Your task to perform on an android device: Open Wikipedia Image 0: 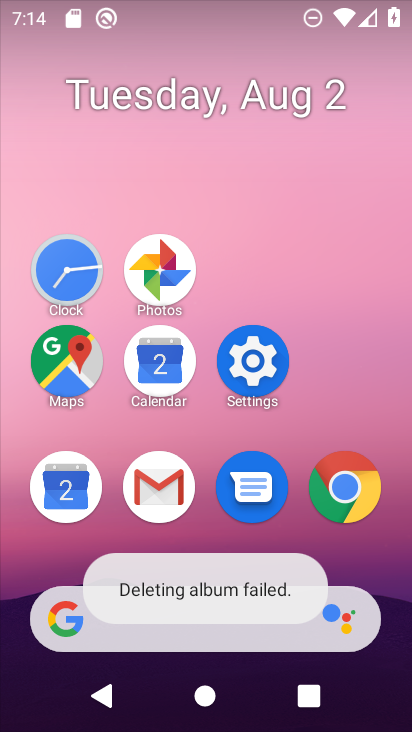
Step 0: click (337, 482)
Your task to perform on an android device: Open Wikipedia Image 1: 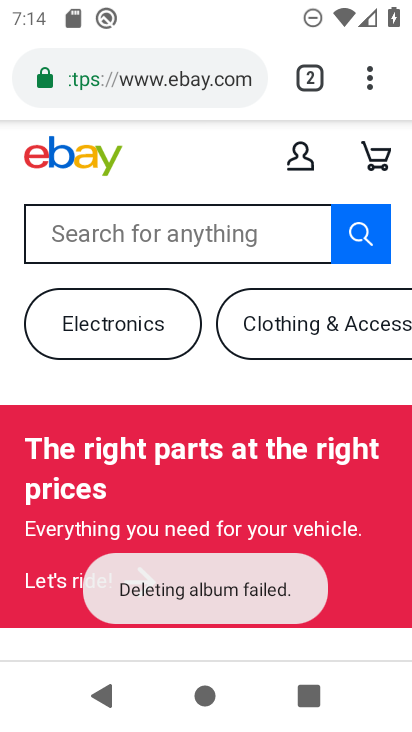
Step 1: click (372, 75)
Your task to perform on an android device: Open Wikipedia Image 2: 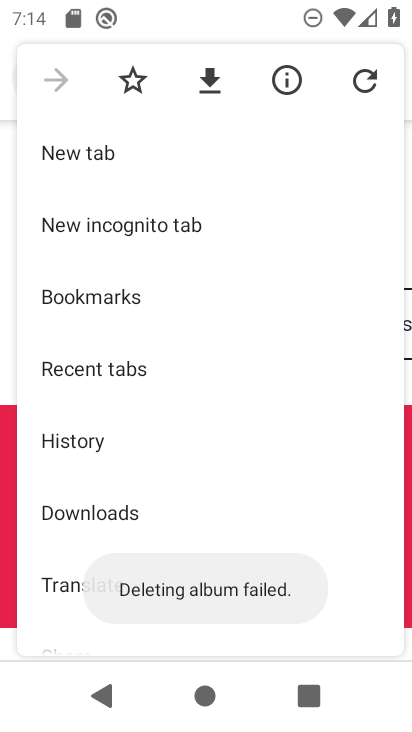
Step 2: click (95, 157)
Your task to perform on an android device: Open Wikipedia Image 3: 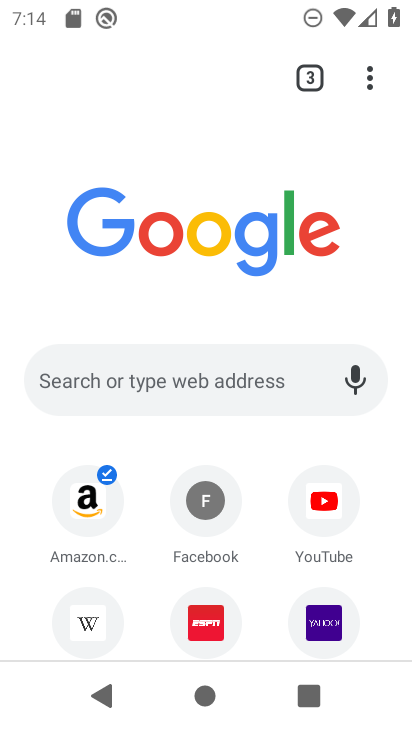
Step 3: drag from (268, 441) to (260, 124)
Your task to perform on an android device: Open Wikipedia Image 4: 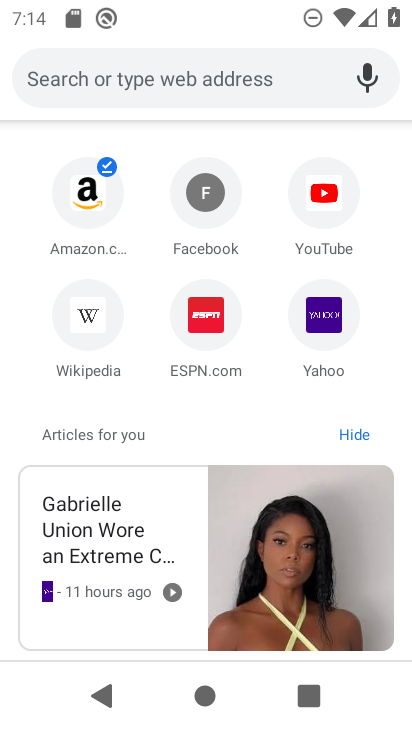
Step 4: click (82, 317)
Your task to perform on an android device: Open Wikipedia Image 5: 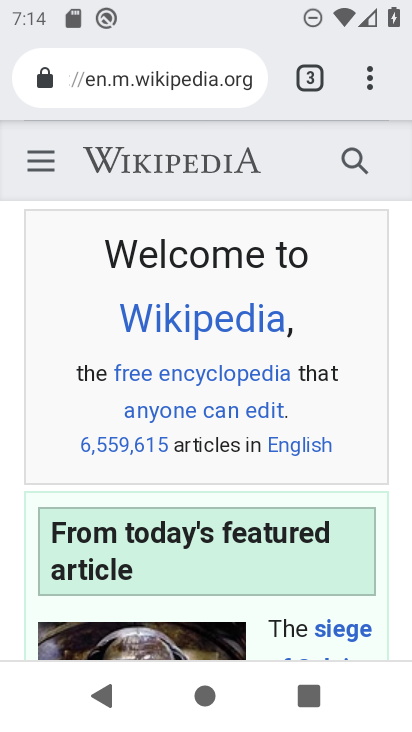
Step 5: task complete